Your task to perform on an android device: Open the calendar app, open the side menu, and click the "Day" option Image 0: 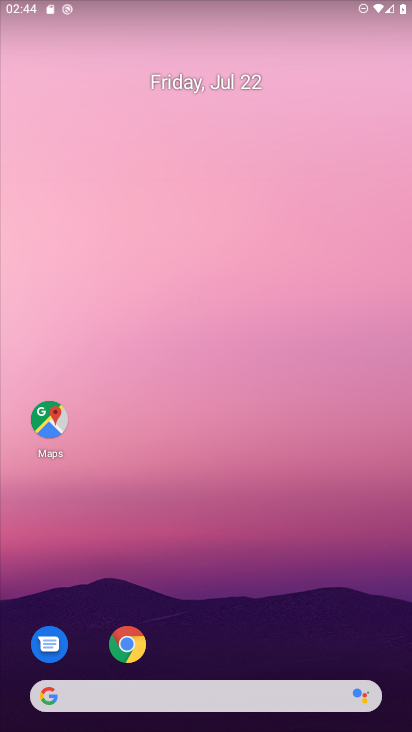
Step 0: drag from (71, 730) to (239, 92)
Your task to perform on an android device: Open the calendar app, open the side menu, and click the "Day" option Image 1: 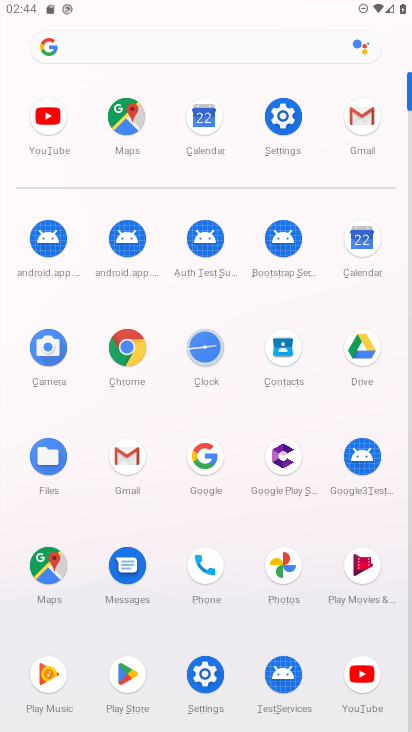
Step 1: click (370, 254)
Your task to perform on an android device: Open the calendar app, open the side menu, and click the "Day" option Image 2: 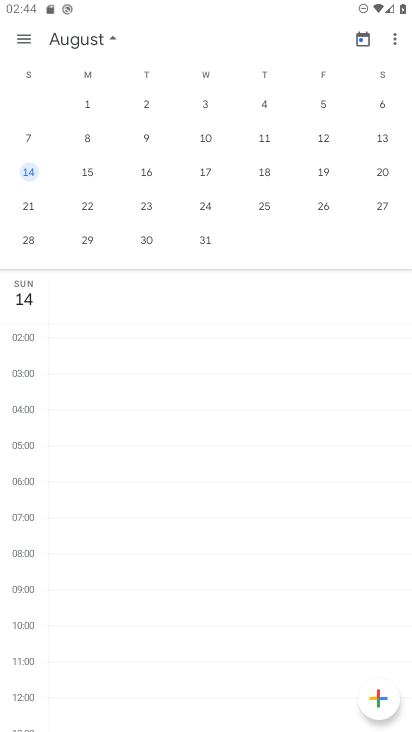
Step 2: drag from (68, 181) to (315, 129)
Your task to perform on an android device: Open the calendar app, open the side menu, and click the "Day" option Image 3: 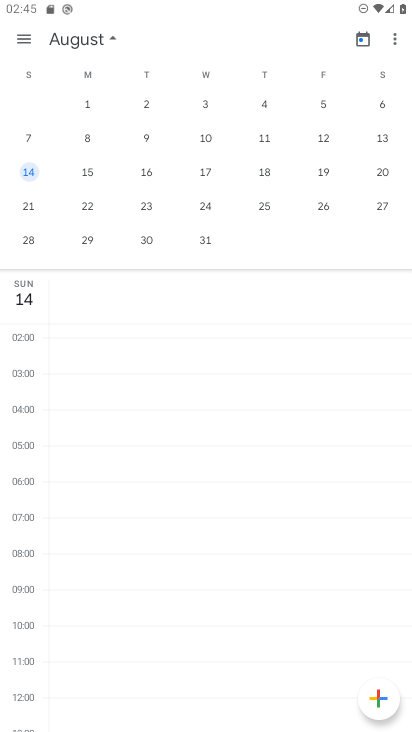
Step 3: drag from (47, 124) to (394, 136)
Your task to perform on an android device: Open the calendar app, open the side menu, and click the "Day" option Image 4: 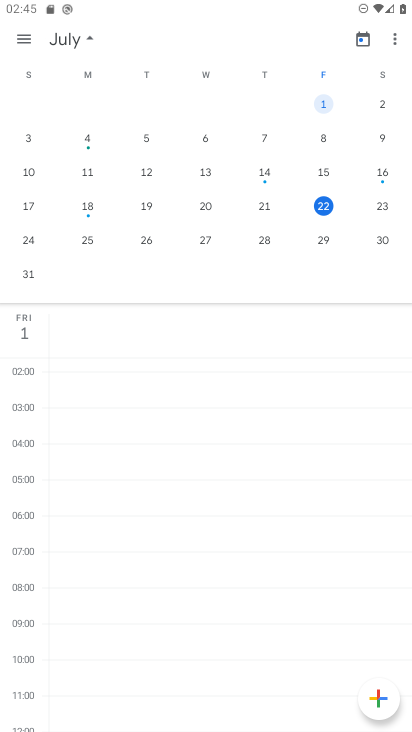
Step 4: click (24, 35)
Your task to perform on an android device: Open the calendar app, open the side menu, and click the "Day" option Image 5: 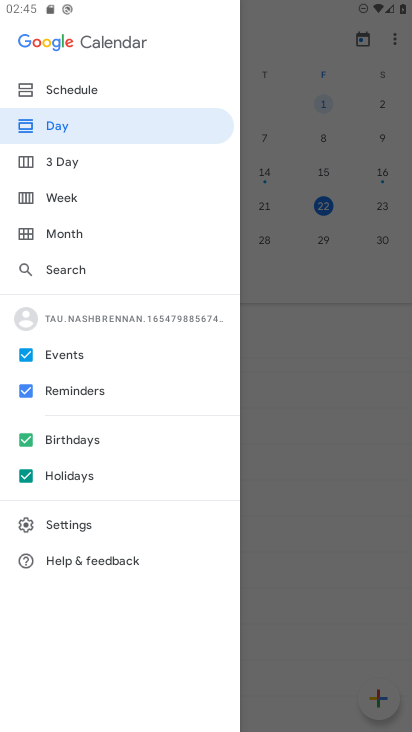
Step 5: click (39, 122)
Your task to perform on an android device: Open the calendar app, open the side menu, and click the "Day" option Image 6: 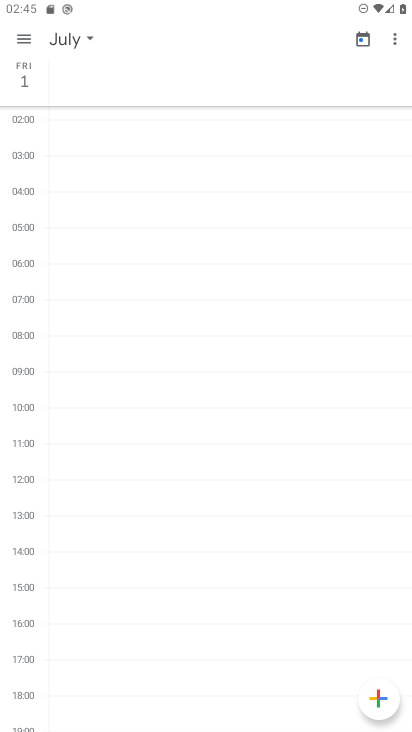
Step 6: task complete